Your task to perform on an android device: Go to ESPN.com Image 0: 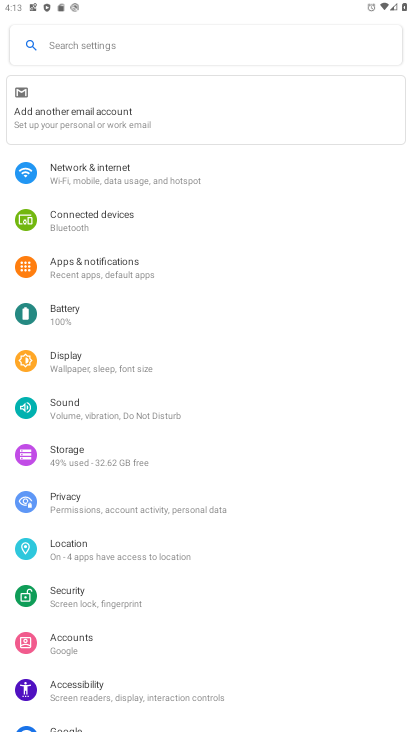
Step 0: press home button
Your task to perform on an android device: Go to ESPN.com Image 1: 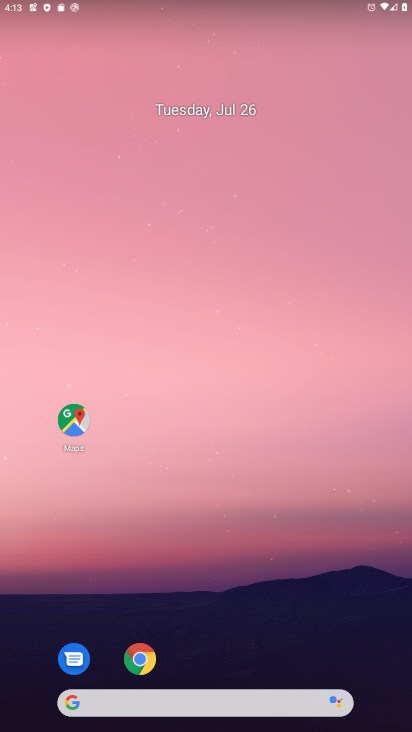
Step 1: click (78, 696)
Your task to perform on an android device: Go to ESPN.com Image 2: 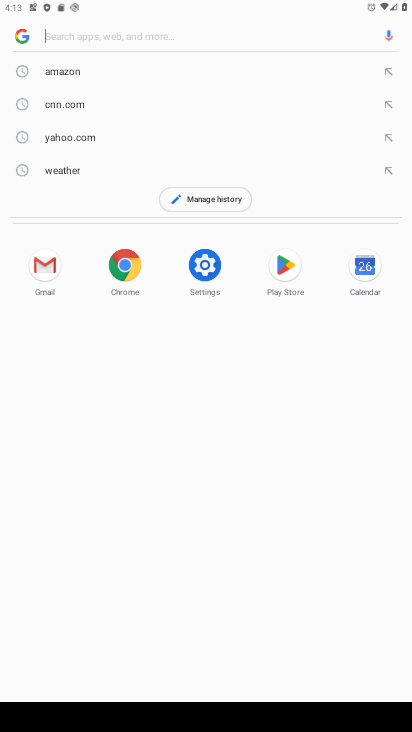
Step 2: type " ESPN.com"
Your task to perform on an android device: Go to ESPN.com Image 3: 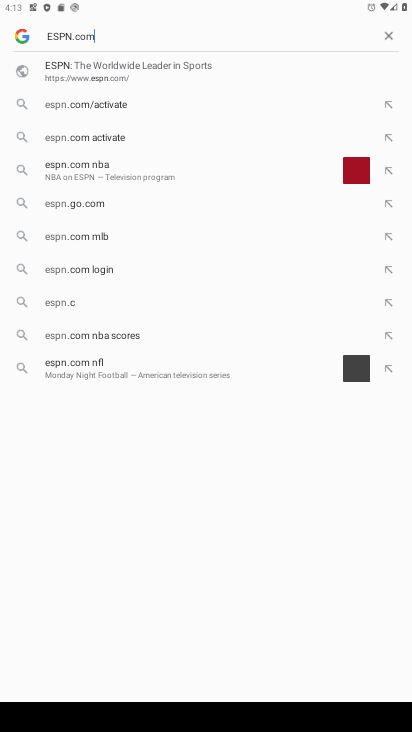
Step 3: press enter
Your task to perform on an android device: Go to ESPN.com Image 4: 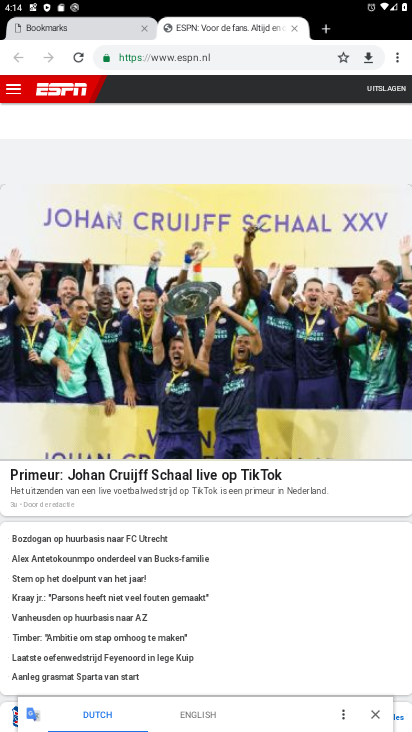
Step 4: task complete